Your task to perform on an android device: Show me the alarms in the clock app Image 0: 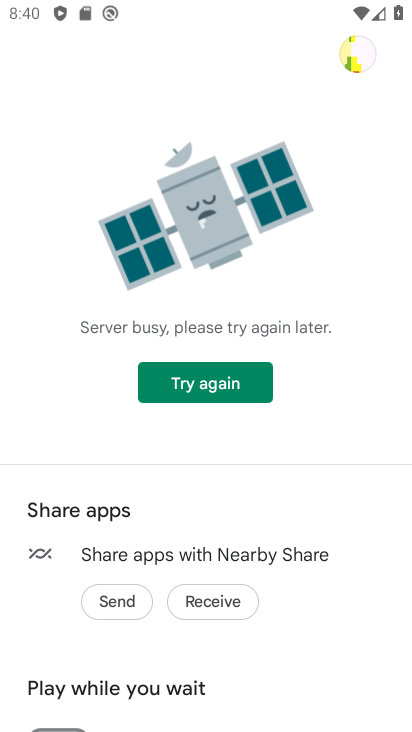
Step 0: press home button
Your task to perform on an android device: Show me the alarms in the clock app Image 1: 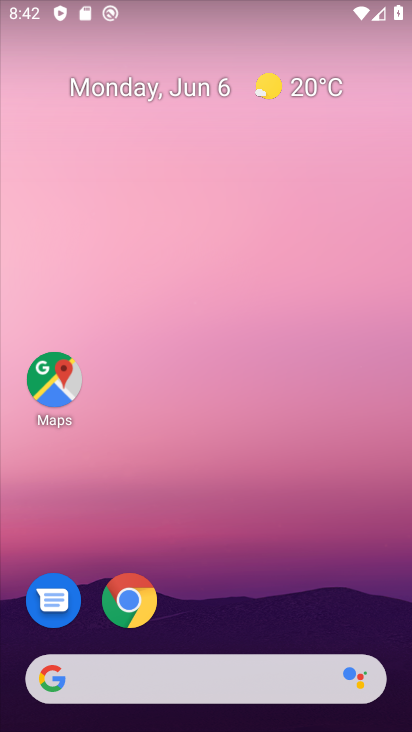
Step 1: drag from (0, 719) to (193, 262)
Your task to perform on an android device: Show me the alarms in the clock app Image 2: 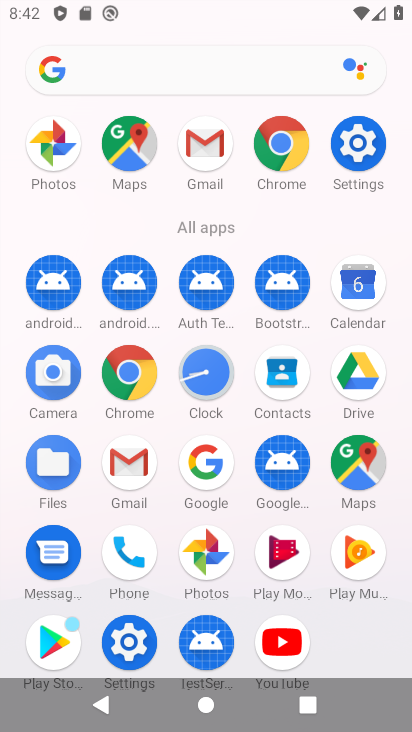
Step 2: click (193, 381)
Your task to perform on an android device: Show me the alarms in the clock app Image 3: 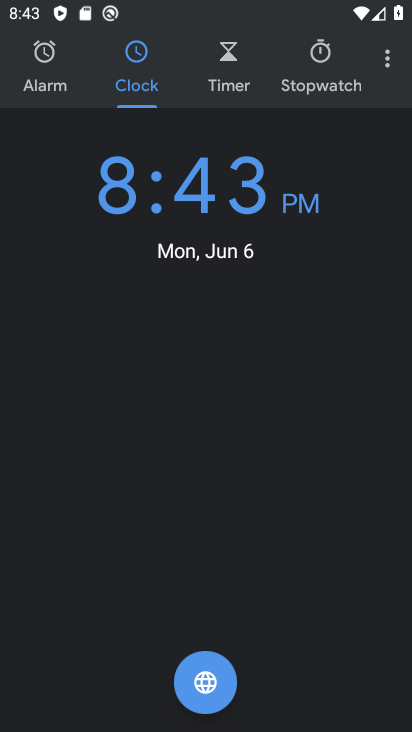
Step 3: click (58, 62)
Your task to perform on an android device: Show me the alarms in the clock app Image 4: 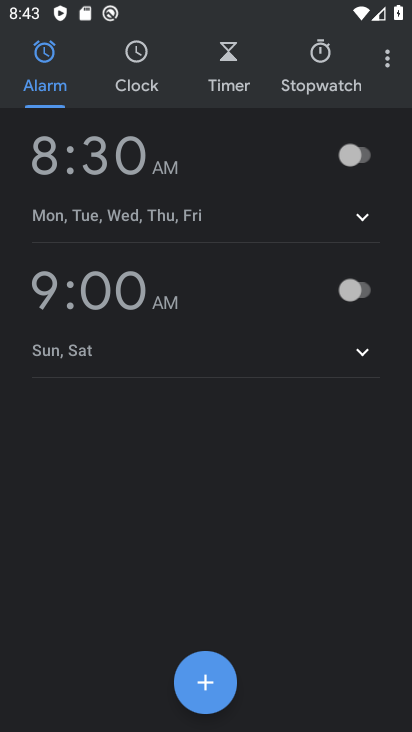
Step 4: task complete